Your task to perform on an android device: manage bookmarks in the chrome app Image 0: 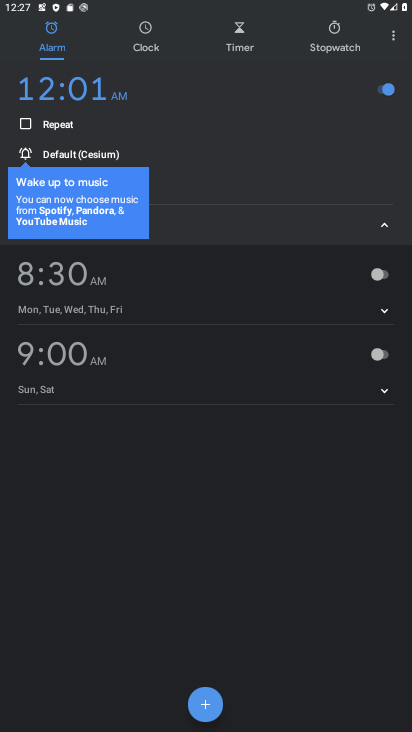
Step 0: press home button
Your task to perform on an android device: manage bookmarks in the chrome app Image 1: 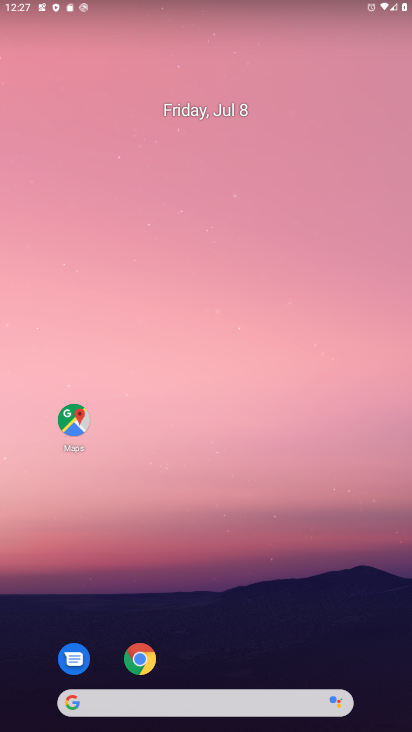
Step 1: click (136, 663)
Your task to perform on an android device: manage bookmarks in the chrome app Image 2: 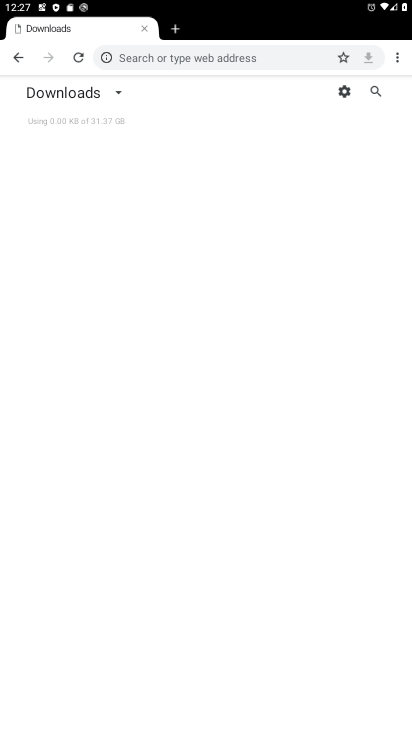
Step 2: click (393, 60)
Your task to perform on an android device: manage bookmarks in the chrome app Image 3: 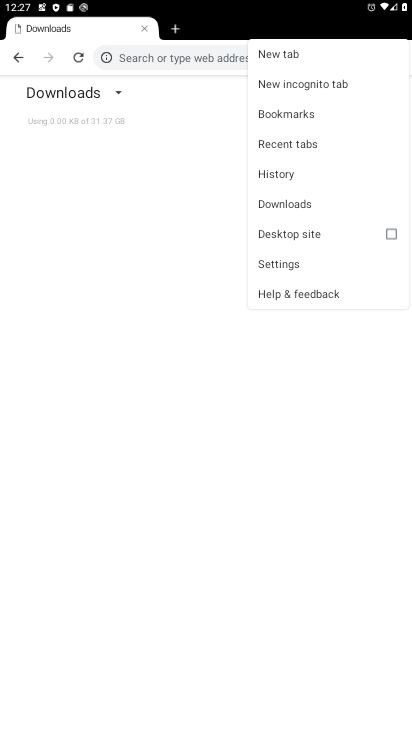
Step 3: click (292, 115)
Your task to perform on an android device: manage bookmarks in the chrome app Image 4: 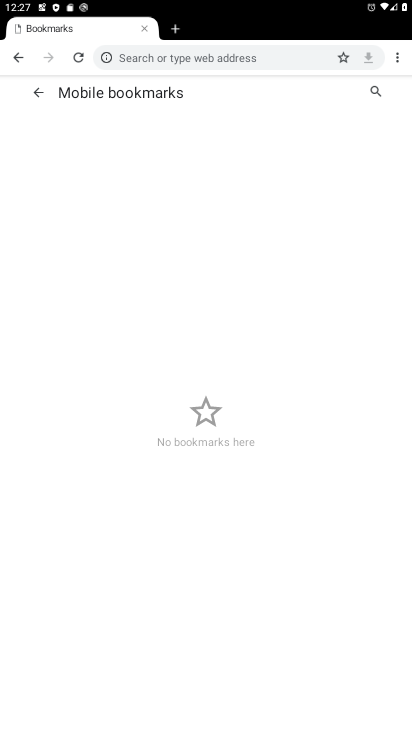
Step 4: task complete